Your task to perform on an android device: What's the weather going to be tomorrow? Image 0: 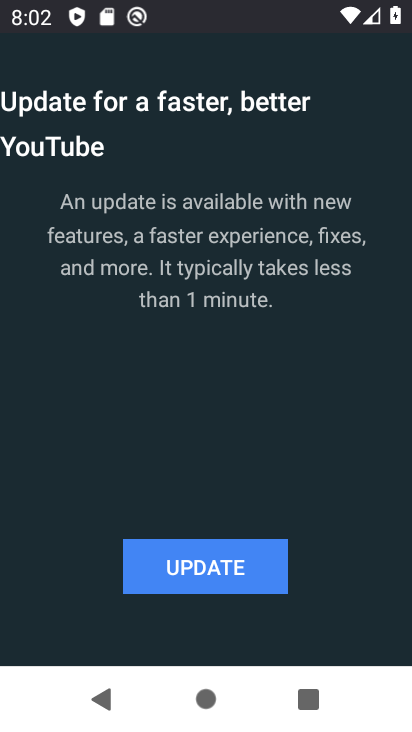
Step 0: press home button
Your task to perform on an android device: What's the weather going to be tomorrow? Image 1: 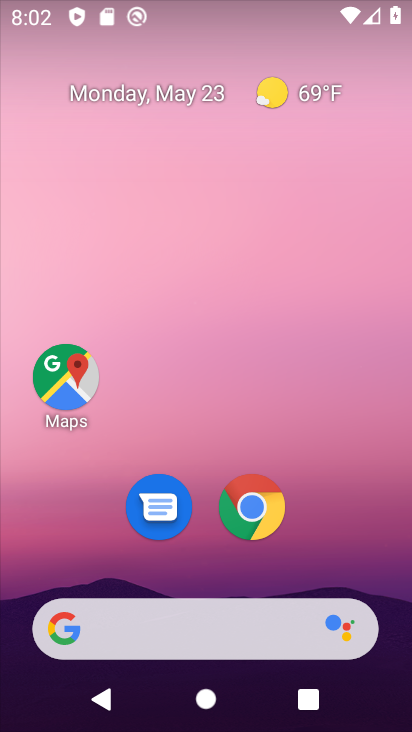
Step 1: click (313, 98)
Your task to perform on an android device: What's the weather going to be tomorrow? Image 2: 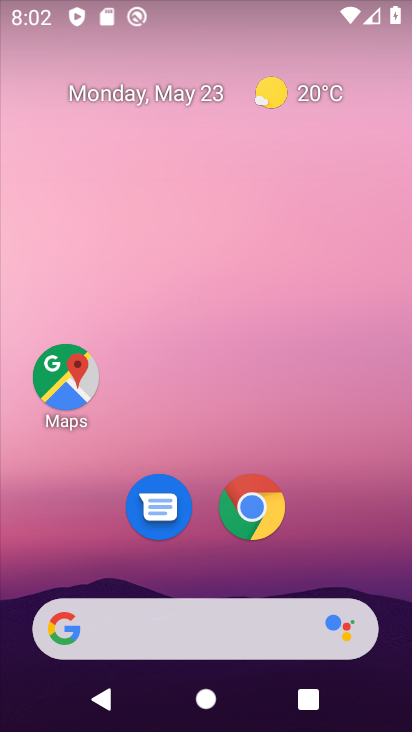
Step 2: click (313, 99)
Your task to perform on an android device: What's the weather going to be tomorrow? Image 3: 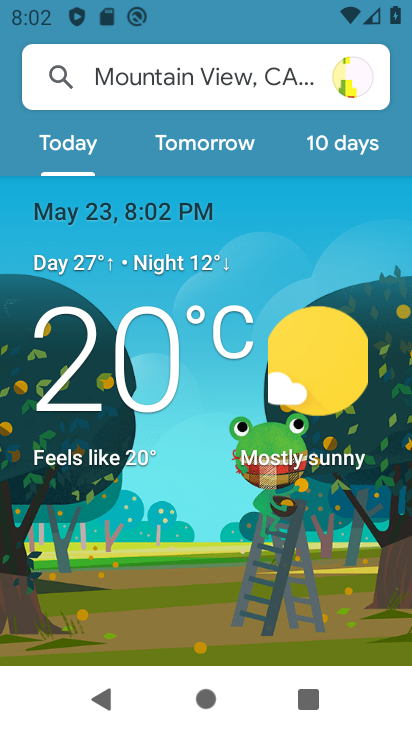
Step 3: click (191, 149)
Your task to perform on an android device: What's the weather going to be tomorrow? Image 4: 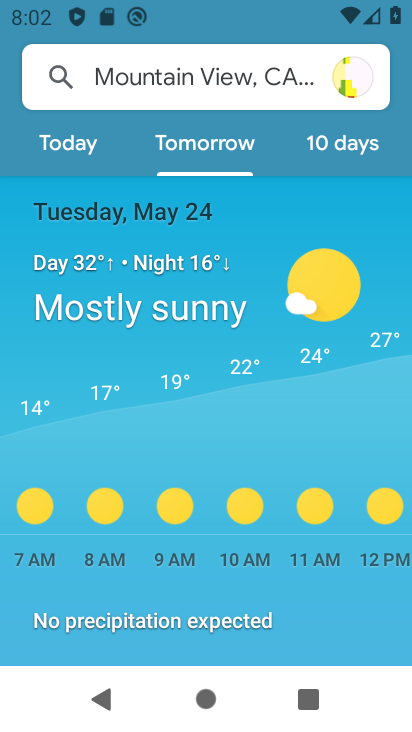
Step 4: task complete